Your task to perform on an android device: turn off notifications in google photos Image 0: 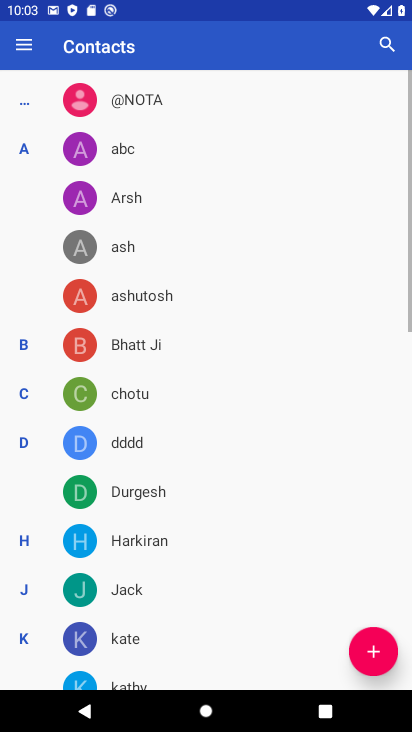
Step 0: press home button
Your task to perform on an android device: turn off notifications in google photos Image 1: 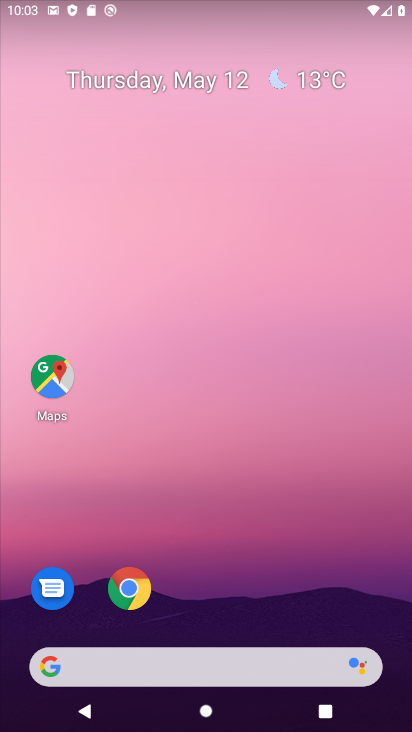
Step 1: drag from (247, 586) to (236, 89)
Your task to perform on an android device: turn off notifications in google photos Image 2: 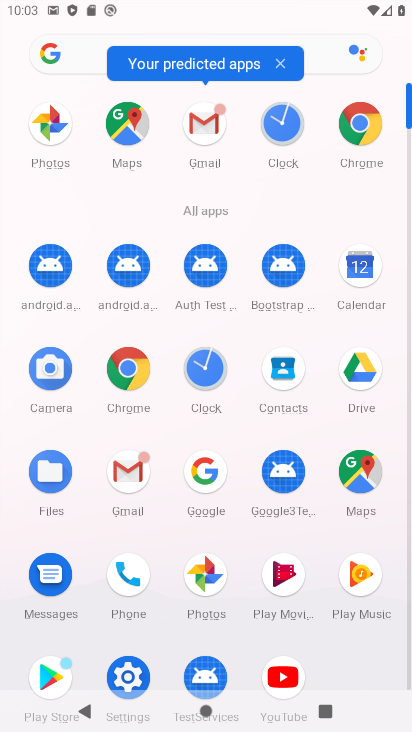
Step 2: click (192, 579)
Your task to perform on an android device: turn off notifications in google photos Image 3: 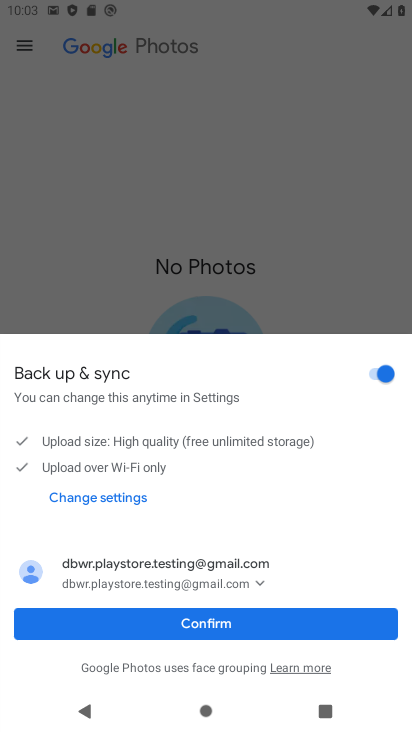
Step 3: click (228, 618)
Your task to perform on an android device: turn off notifications in google photos Image 4: 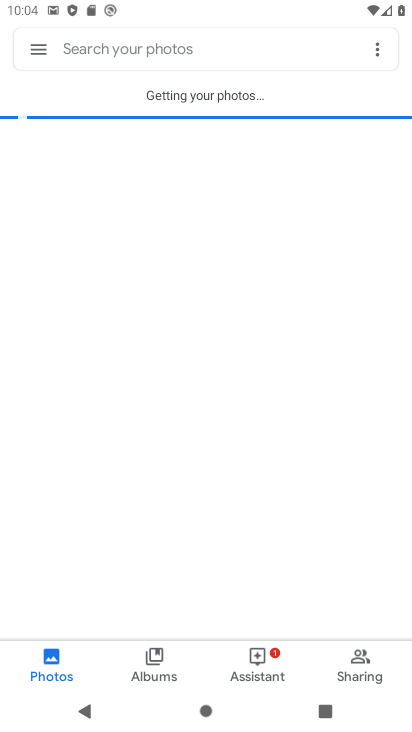
Step 4: click (30, 60)
Your task to perform on an android device: turn off notifications in google photos Image 5: 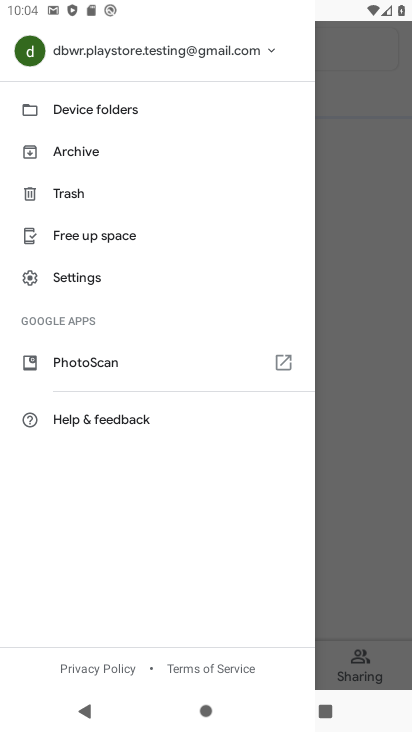
Step 5: click (77, 276)
Your task to perform on an android device: turn off notifications in google photos Image 6: 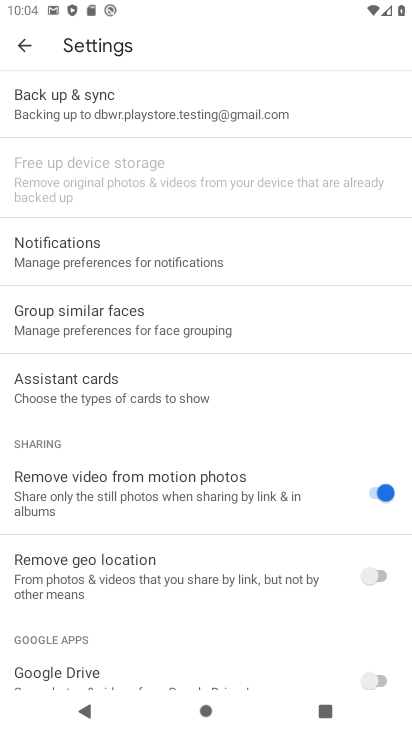
Step 6: click (102, 242)
Your task to perform on an android device: turn off notifications in google photos Image 7: 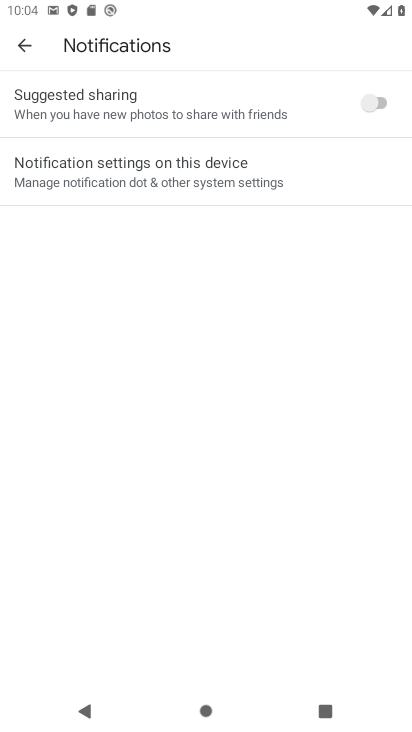
Step 7: click (156, 189)
Your task to perform on an android device: turn off notifications in google photos Image 8: 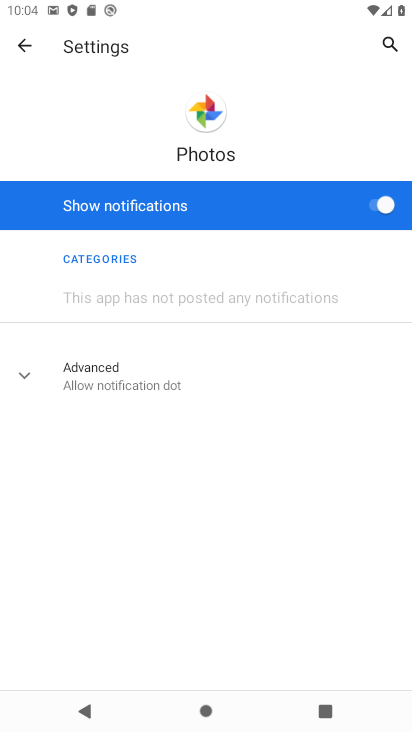
Step 8: click (354, 207)
Your task to perform on an android device: turn off notifications in google photos Image 9: 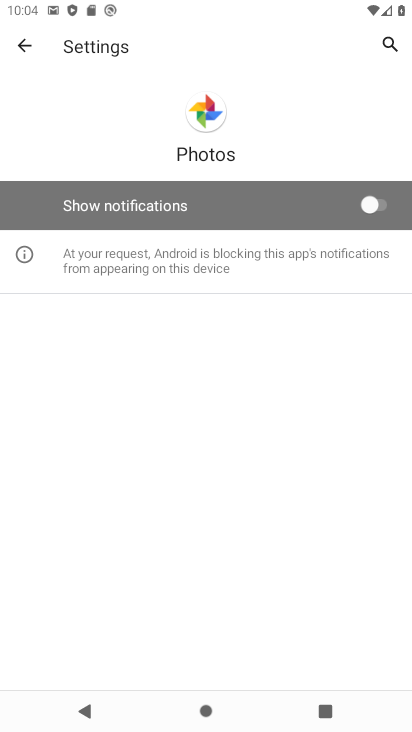
Step 9: task complete